Your task to perform on an android device: turn off translation in the chrome app Image 0: 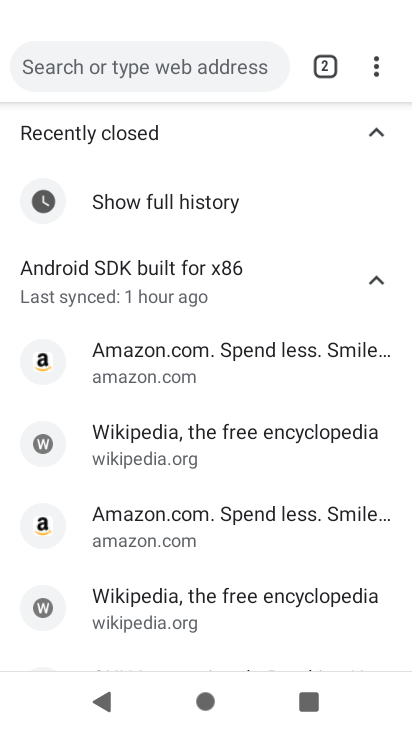
Step 0: press home button
Your task to perform on an android device: turn off translation in the chrome app Image 1: 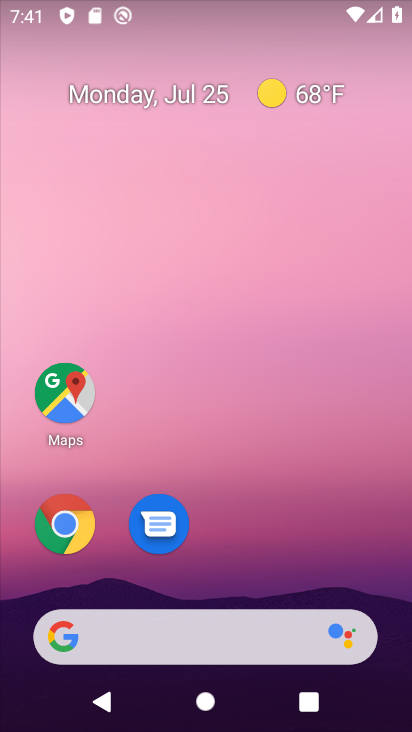
Step 1: click (69, 519)
Your task to perform on an android device: turn off translation in the chrome app Image 2: 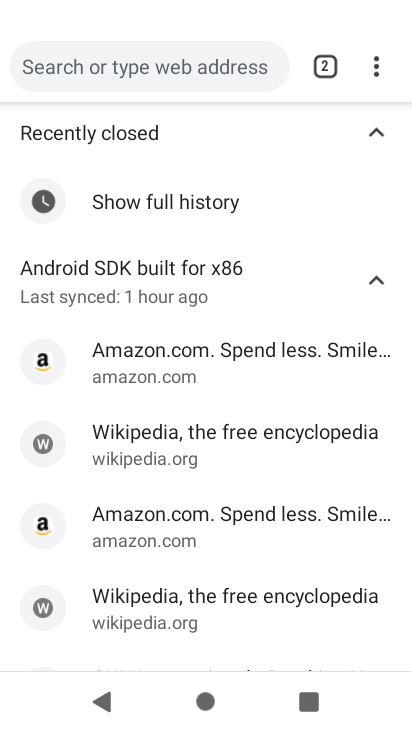
Step 2: click (377, 71)
Your task to perform on an android device: turn off translation in the chrome app Image 3: 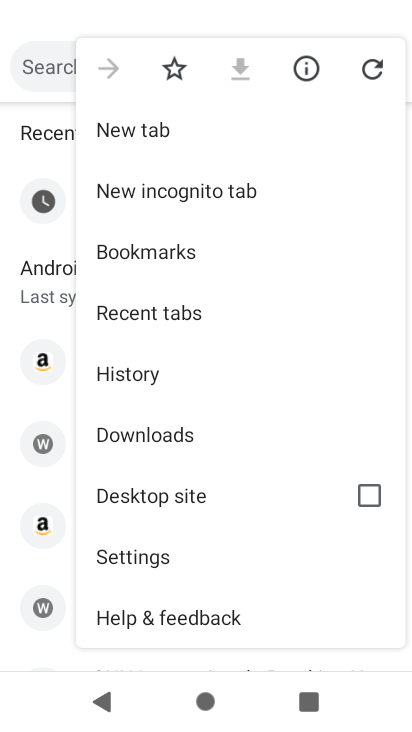
Step 3: click (159, 560)
Your task to perform on an android device: turn off translation in the chrome app Image 4: 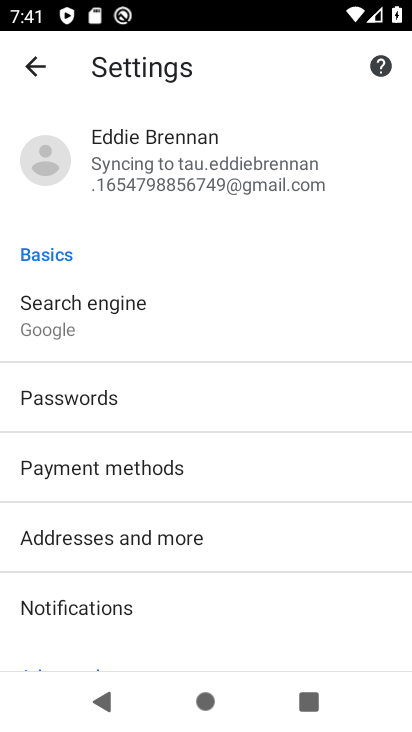
Step 4: drag from (238, 586) to (256, 192)
Your task to perform on an android device: turn off translation in the chrome app Image 5: 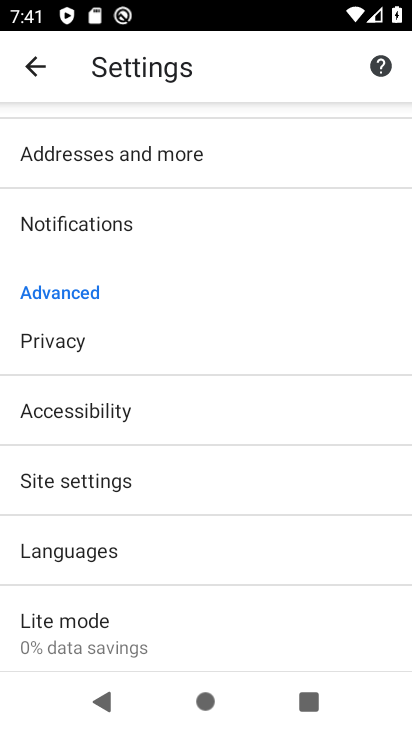
Step 5: click (156, 543)
Your task to perform on an android device: turn off translation in the chrome app Image 6: 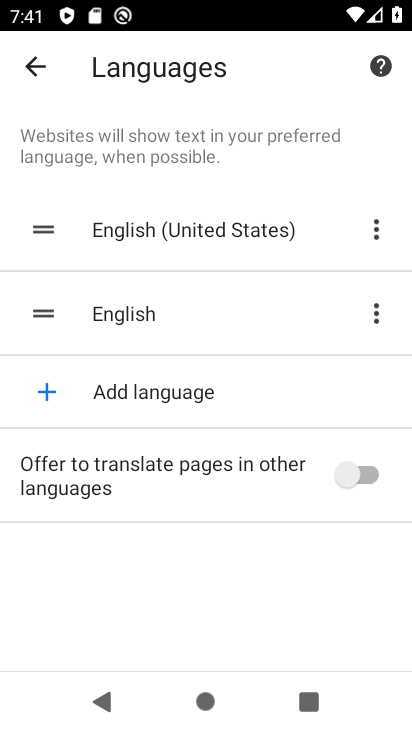
Step 6: task complete